Your task to perform on an android device: Open Google Chrome Image 0: 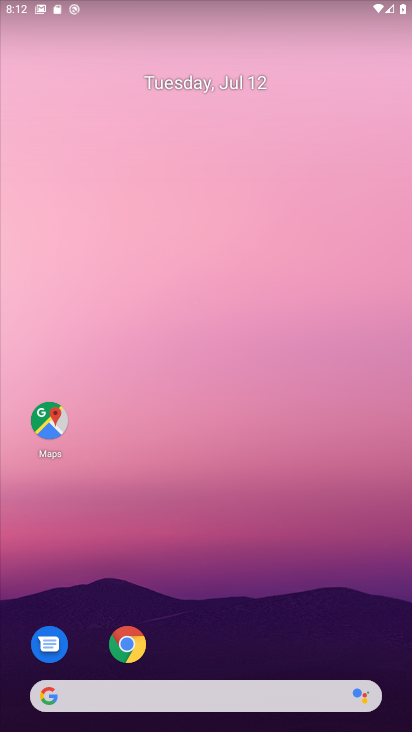
Step 0: drag from (358, 589) to (404, 31)
Your task to perform on an android device: Open Google Chrome Image 1: 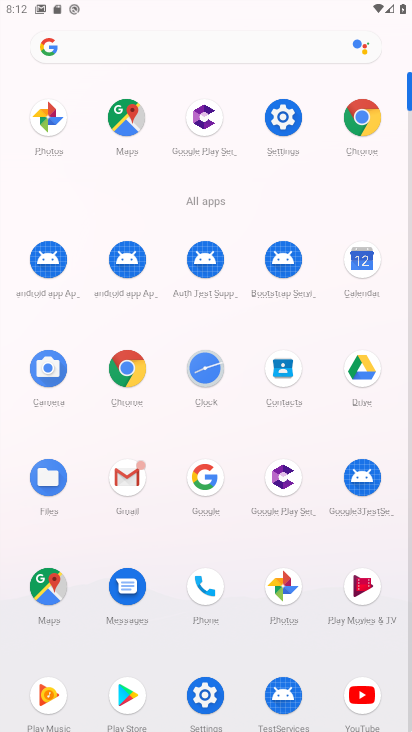
Step 1: click (376, 122)
Your task to perform on an android device: Open Google Chrome Image 2: 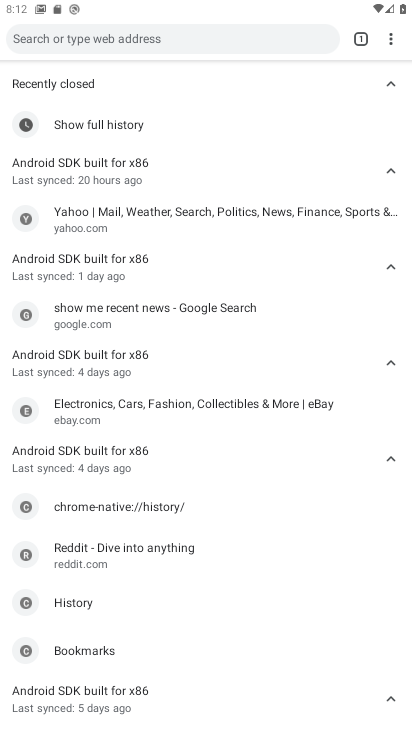
Step 2: task complete